Your task to perform on an android device: Go to Reddit.com Image 0: 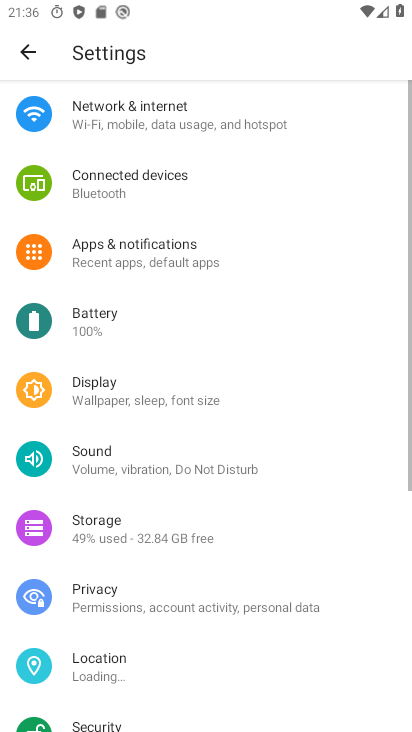
Step 0: press home button
Your task to perform on an android device: Go to Reddit.com Image 1: 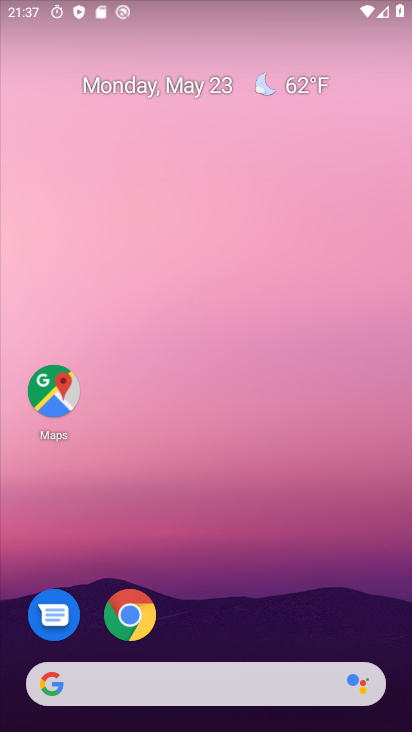
Step 1: drag from (263, 633) to (258, 127)
Your task to perform on an android device: Go to Reddit.com Image 2: 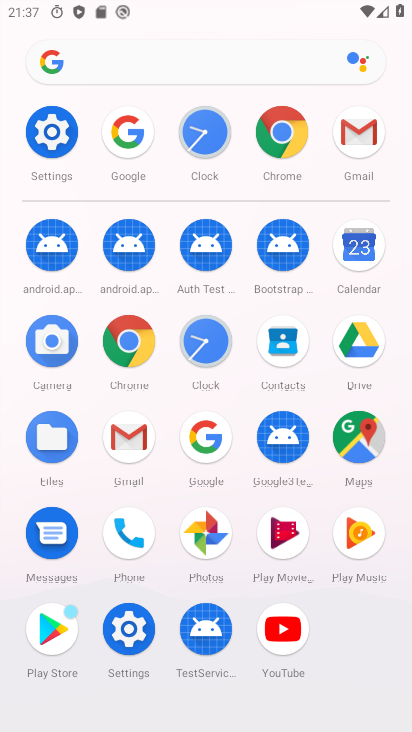
Step 2: click (203, 439)
Your task to perform on an android device: Go to Reddit.com Image 3: 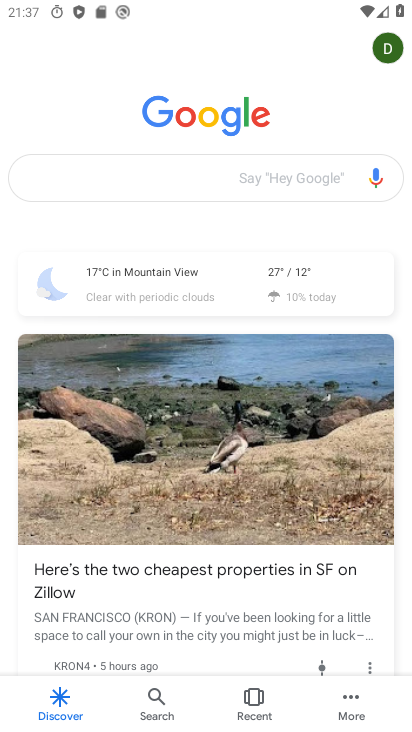
Step 3: click (173, 175)
Your task to perform on an android device: Go to Reddit.com Image 4: 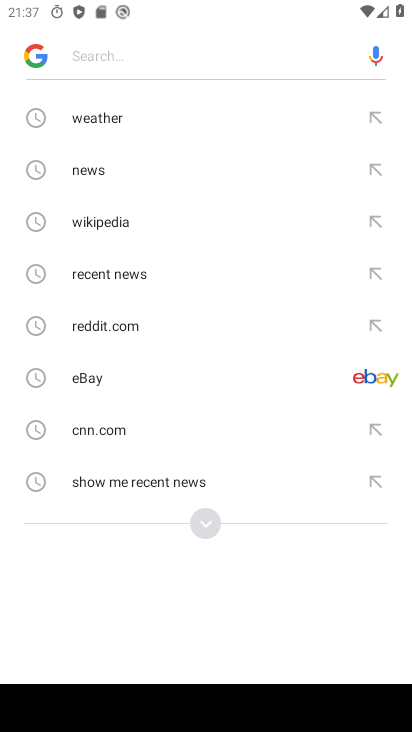
Step 4: type "reddit.com"
Your task to perform on an android device: Go to Reddit.com Image 5: 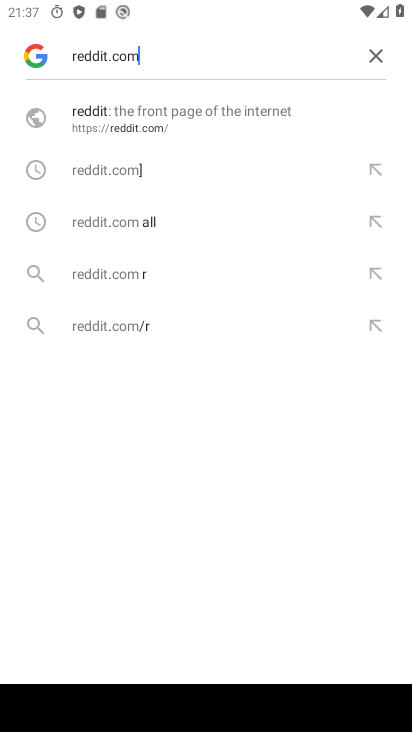
Step 5: click (186, 129)
Your task to perform on an android device: Go to Reddit.com Image 6: 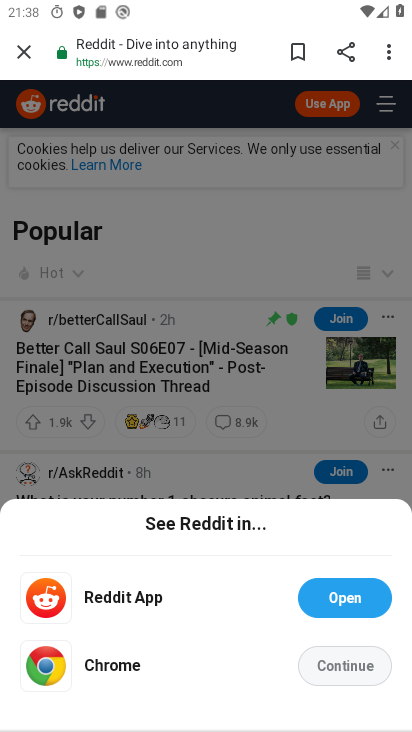
Step 6: task complete